Your task to perform on an android device: change the clock display to digital Image 0: 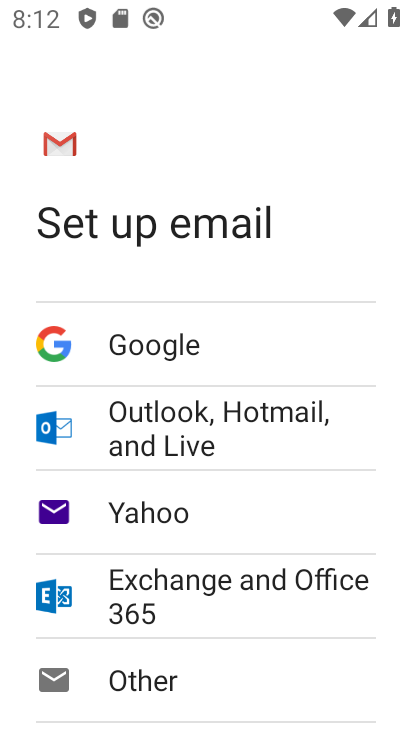
Step 0: press home button
Your task to perform on an android device: change the clock display to digital Image 1: 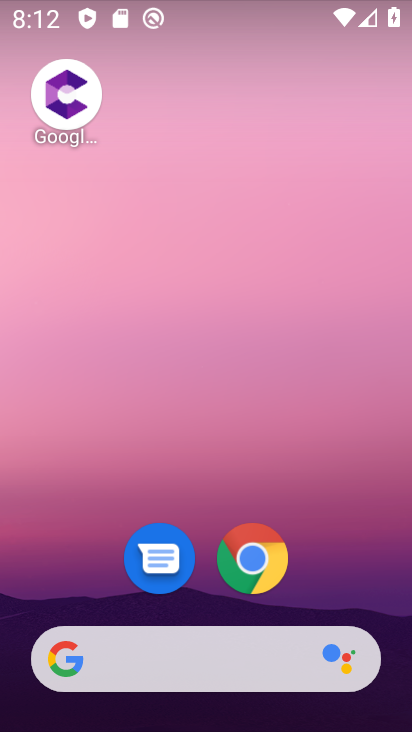
Step 1: drag from (340, 523) to (212, 120)
Your task to perform on an android device: change the clock display to digital Image 2: 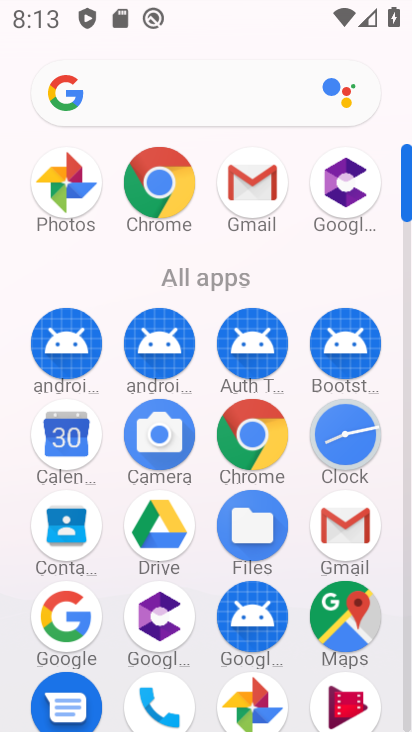
Step 2: click (339, 440)
Your task to perform on an android device: change the clock display to digital Image 3: 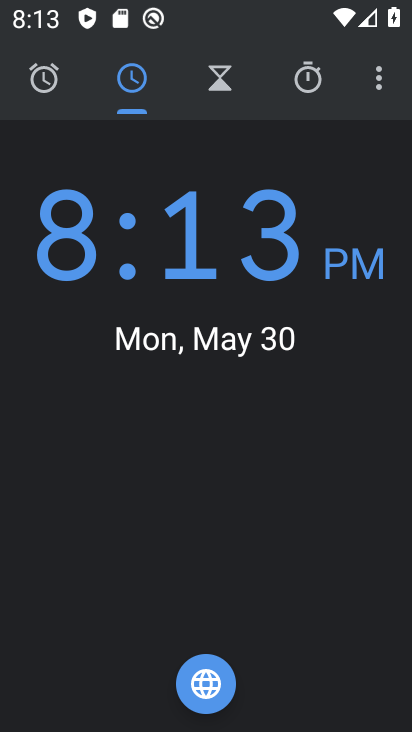
Step 3: click (69, 83)
Your task to perform on an android device: change the clock display to digital Image 4: 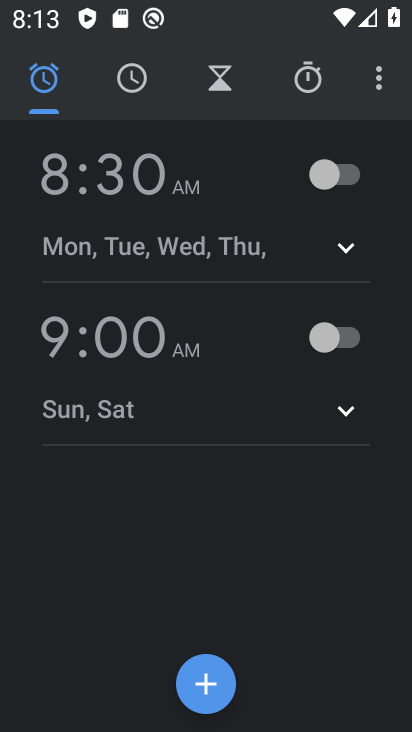
Step 4: click (383, 57)
Your task to perform on an android device: change the clock display to digital Image 5: 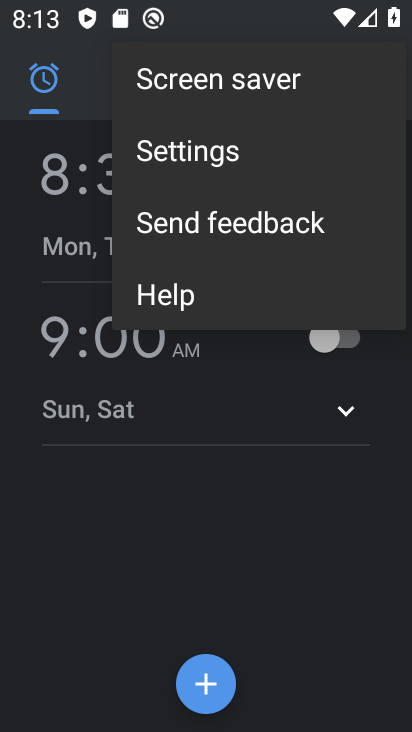
Step 5: click (249, 151)
Your task to perform on an android device: change the clock display to digital Image 6: 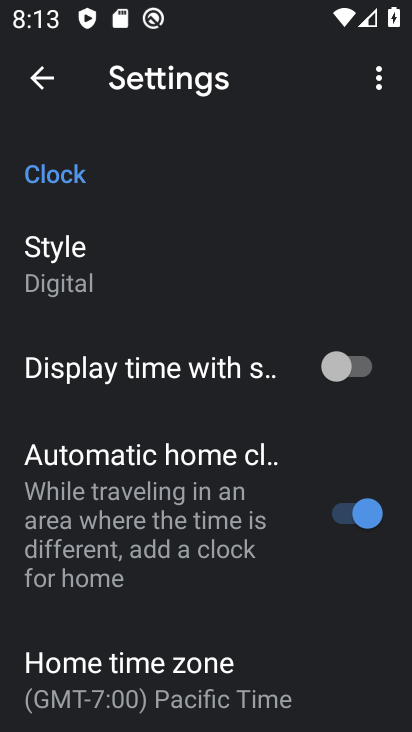
Step 6: click (110, 268)
Your task to perform on an android device: change the clock display to digital Image 7: 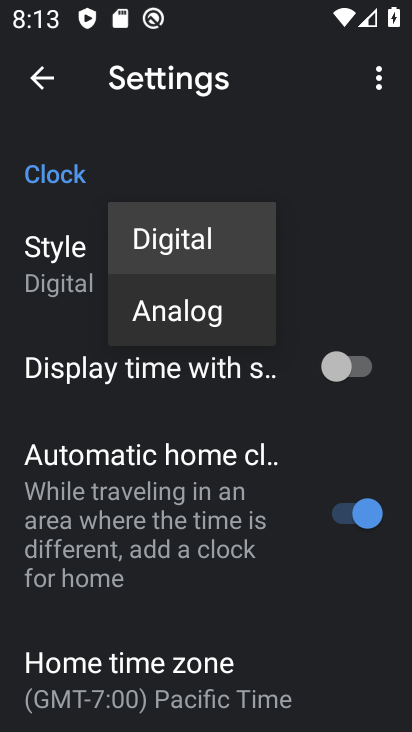
Step 7: task complete